Your task to perform on an android device: check the backup settings in the google photos Image 0: 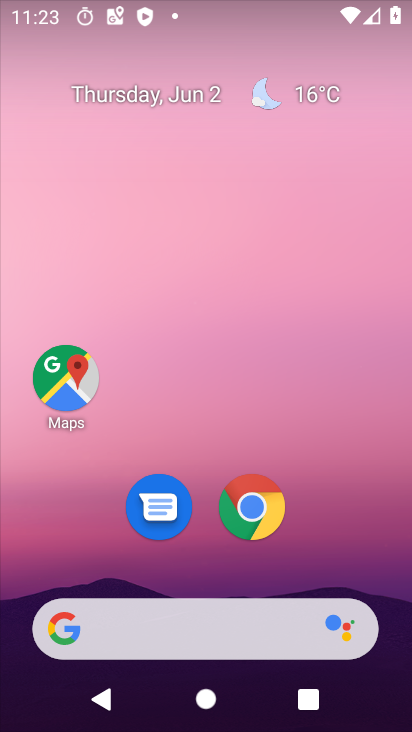
Step 0: drag from (391, 627) to (273, 158)
Your task to perform on an android device: check the backup settings in the google photos Image 1: 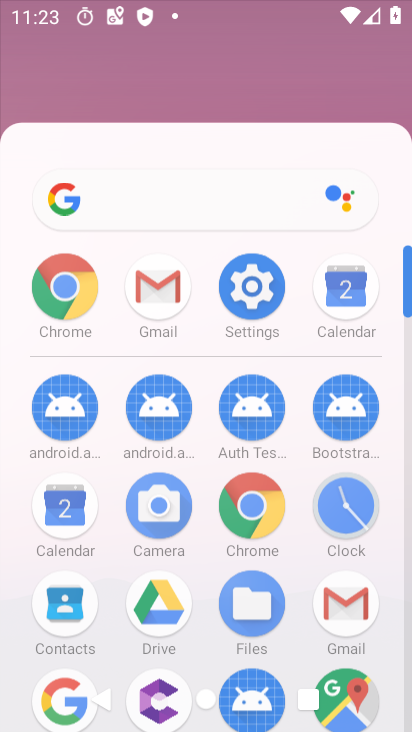
Step 1: click (233, 74)
Your task to perform on an android device: check the backup settings in the google photos Image 2: 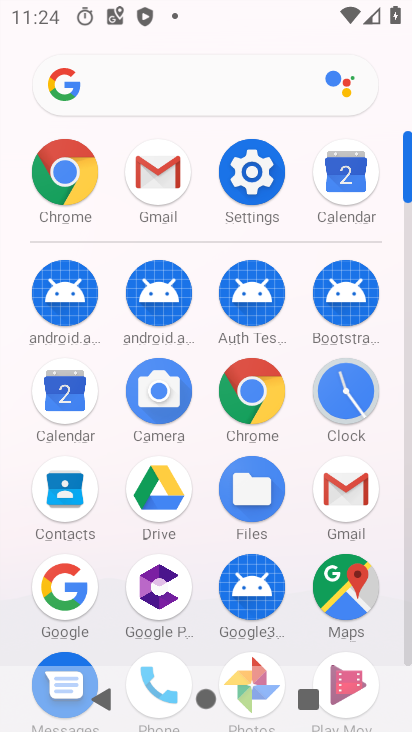
Step 2: drag from (195, 640) to (212, 195)
Your task to perform on an android device: check the backup settings in the google photos Image 3: 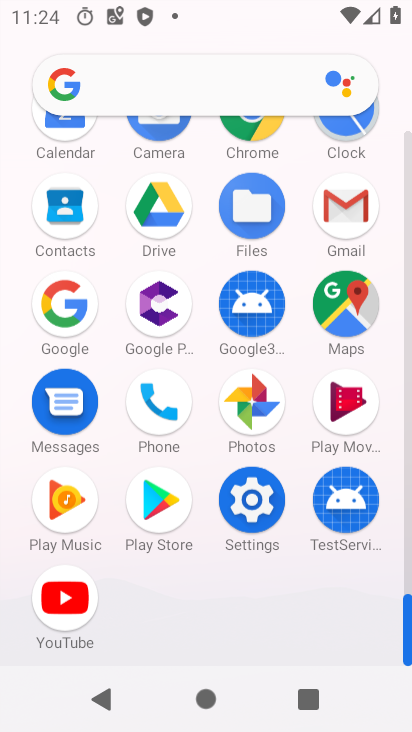
Step 3: click (212, 140)
Your task to perform on an android device: check the backup settings in the google photos Image 4: 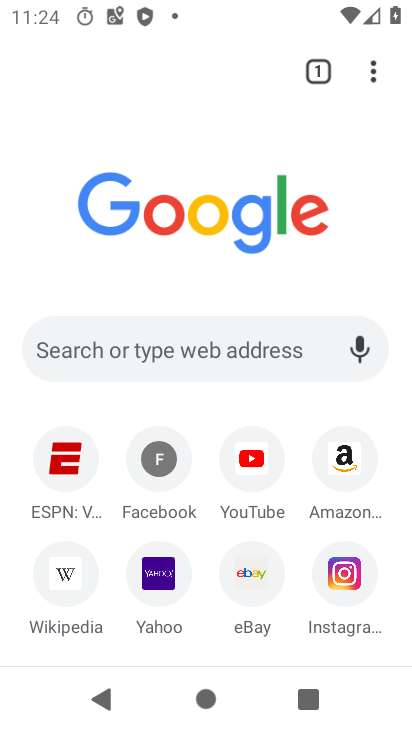
Step 4: click (266, 407)
Your task to perform on an android device: check the backup settings in the google photos Image 5: 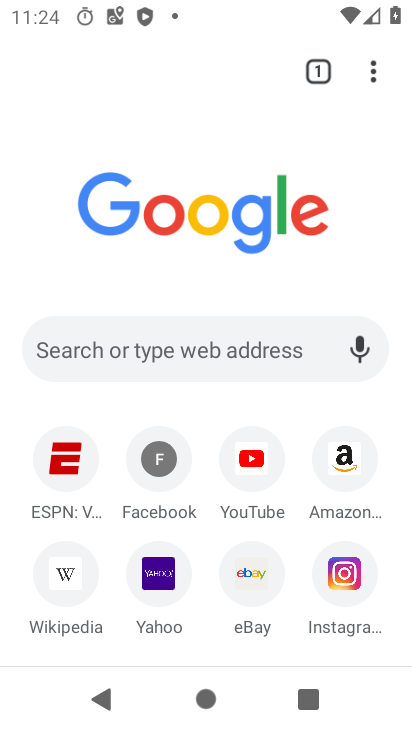
Step 5: press back button
Your task to perform on an android device: check the backup settings in the google photos Image 6: 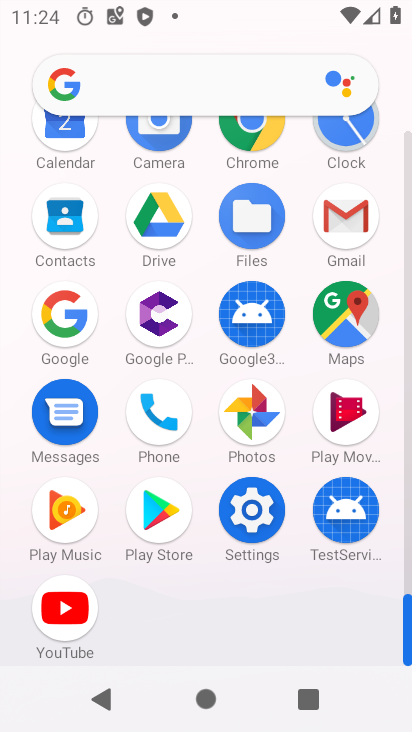
Step 6: click (267, 409)
Your task to perform on an android device: check the backup settings in the google photos Image 7: 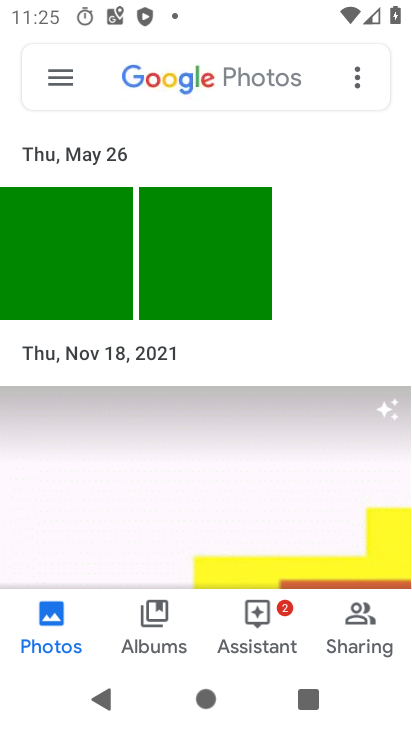
Step 7: click (46, 66)
Your task to perform on an android device: check the backup settings in the google photos Image 8: 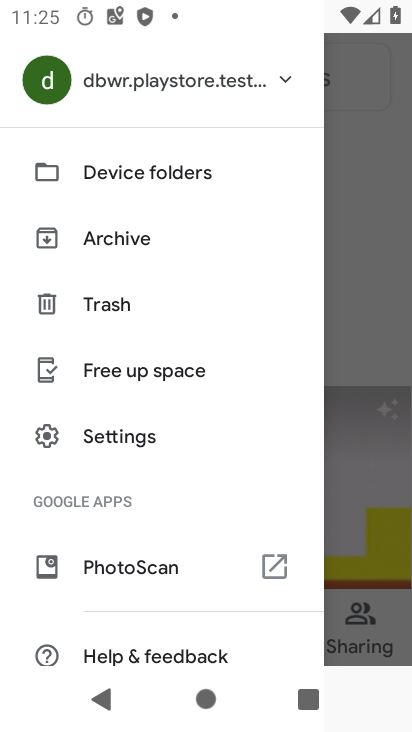
Step 8: click (151, 438)
Your task to perform on an android device: check the backup settings in the google photos Image 9: 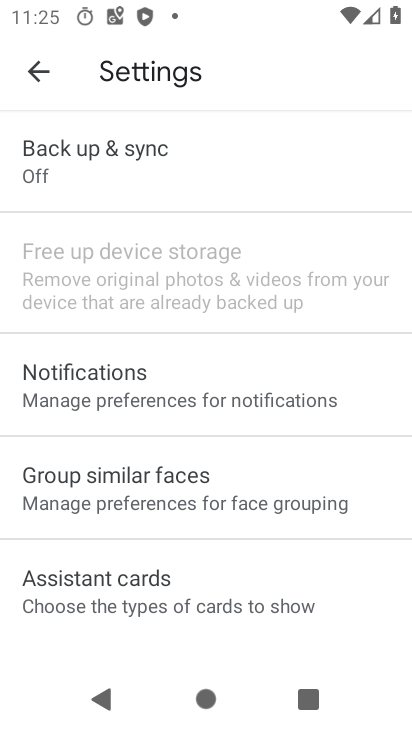
Step 9: click (193, 167)
Your task to perform on an android device: check the backup settings in the google photos Image 10: 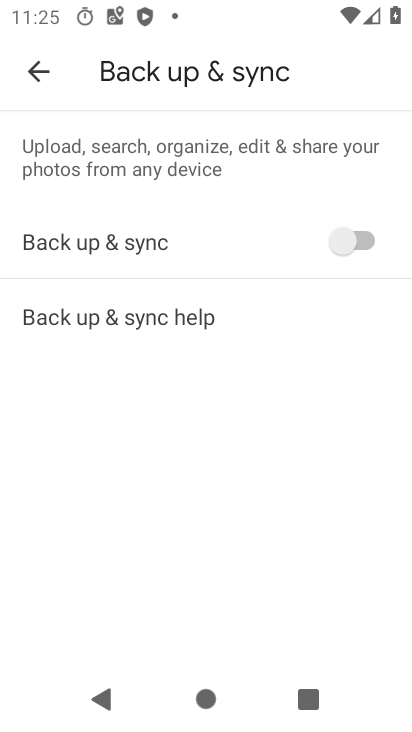
Step 10: task complete